Your task to perform on an android device: turn on sleep mode Image 0: 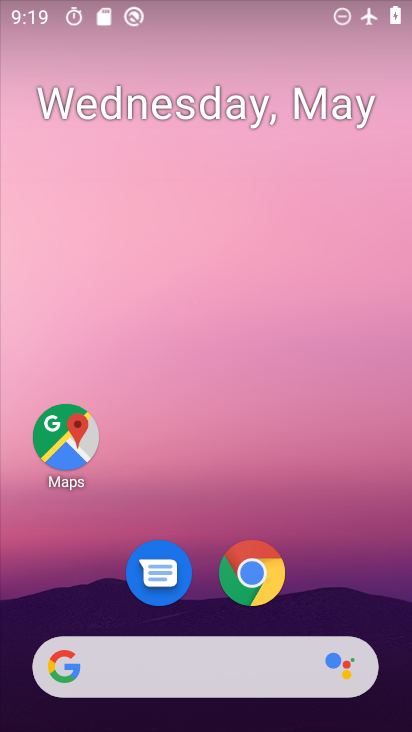
Step 0: drag from (392, 681) to (375, 246)
Your task to perform on an android device: turn on sleep mode Image 1: 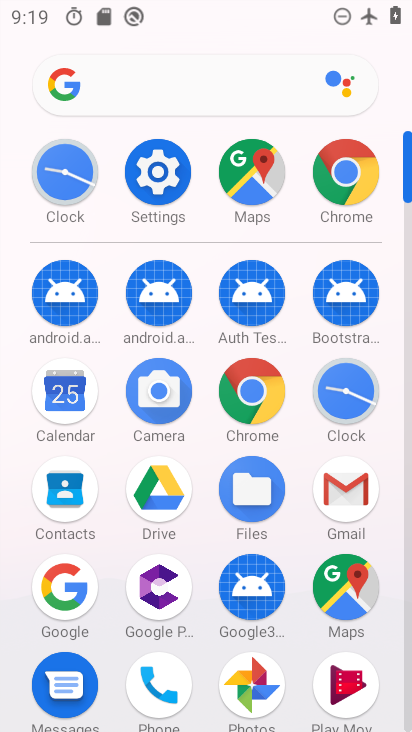
Step 1: click (145, 177)
Your task to perform on an android device: turn on sleep mode Image 2: 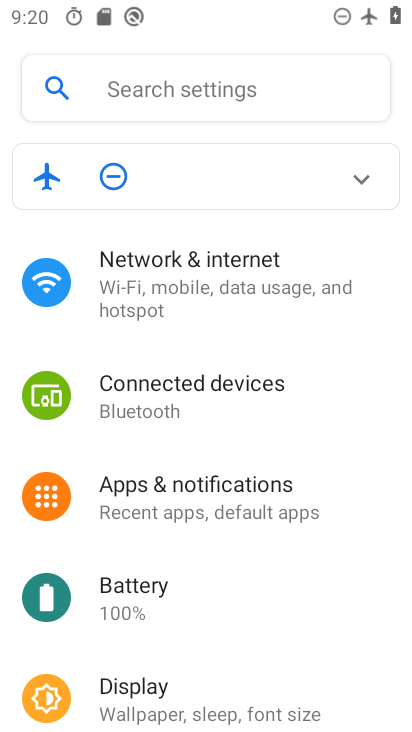
Step 2: drag from (253, 674) to (277, 419)
Your task to perform on an android device: turn on sleep mode Image 3: 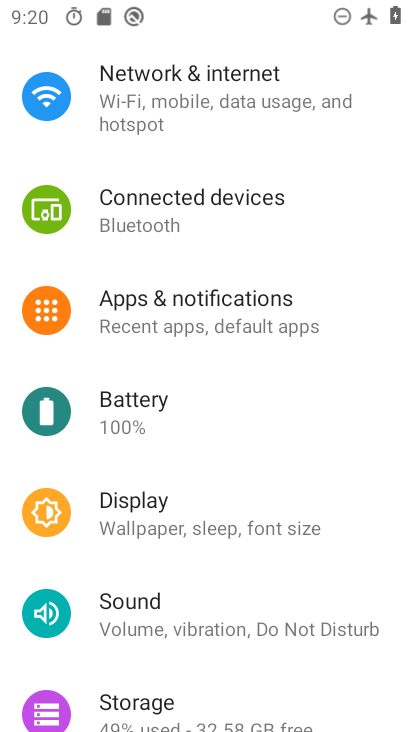
Step 3: click (120, 513)
Your task to perform on an android device: turn on sleep mode Image 4: 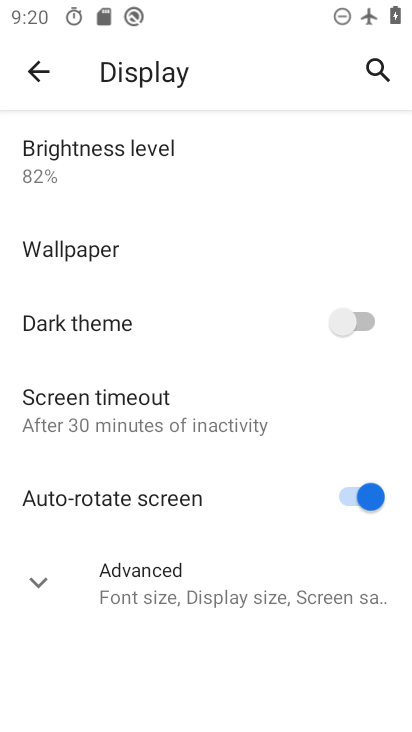
Step 4: click (114, 392)
Your task to perform on an android device: turn on sleep mode Image 5: 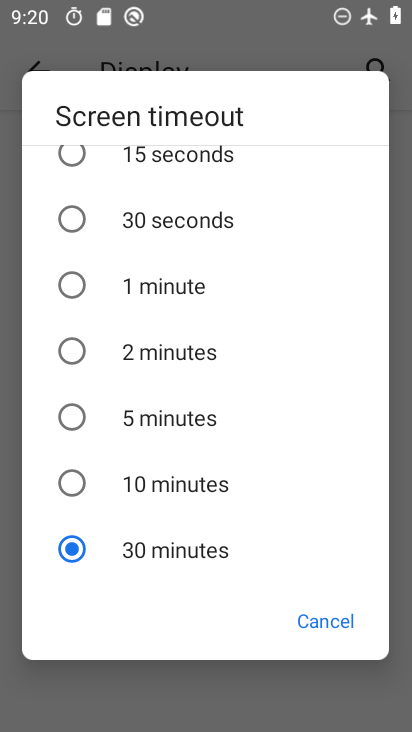
Step 5: task complete